Your task to perform on an android device: show emergency info Image 0: 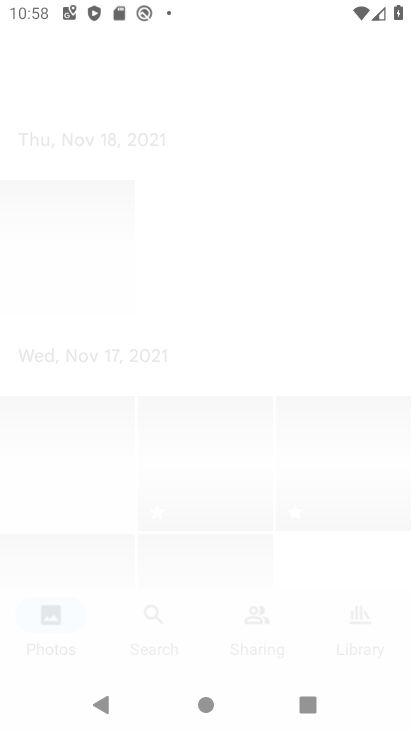
Step 0: drag from (219, 726) to (221, 167)
Your task to perform on an android device: show emergency info Image 1: 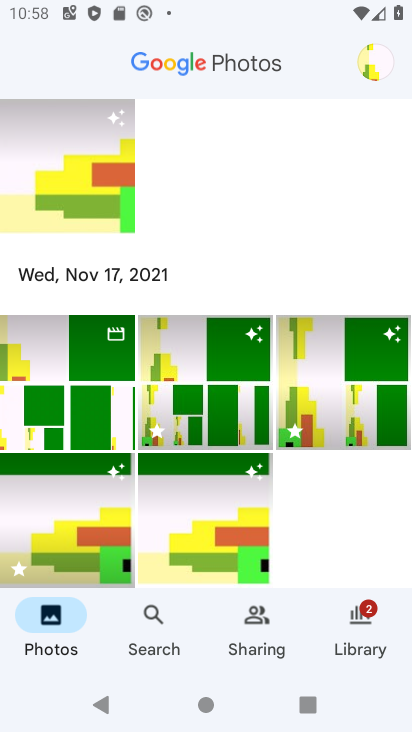
Step 1: press home button
Your task to perform on an android device: show emergency info Image 2: 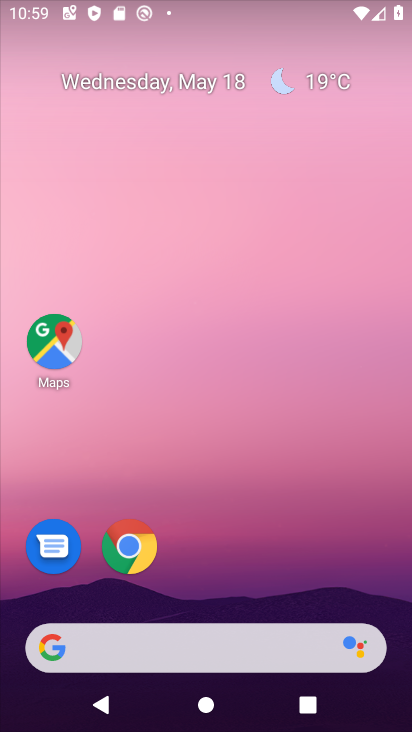
Step 2: drag from (242, 722) to (246, 109)
Your task to perform on an android device: show emergency info Image 3: 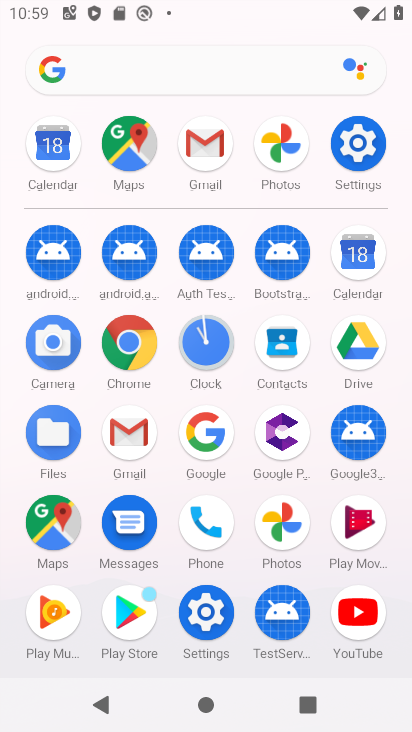
Step 3: click (363, 151)
Your task to perform on an android device: show emergency info Image 4: 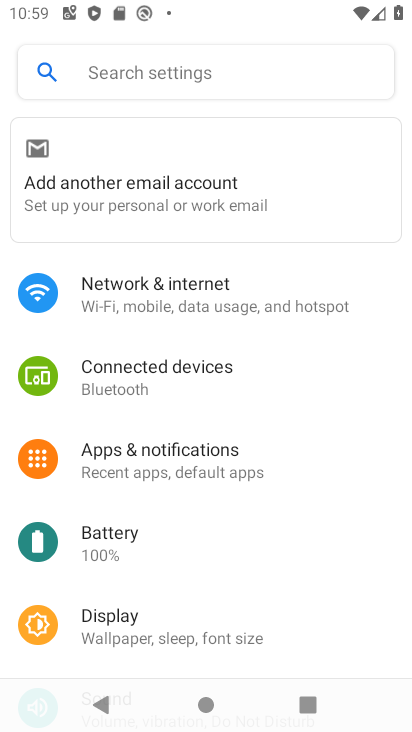
Step 4: drag from (139, 636) to (204, 161)
Your task to perform on an android device: show emergency info Image 5: 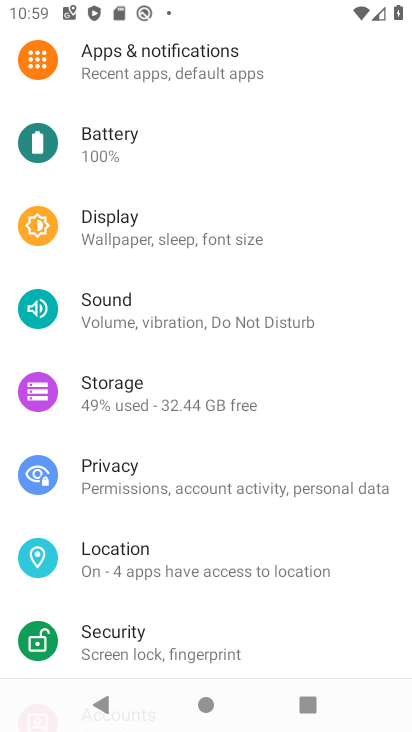
Step 5: drag from (217, 650) to (225, 180)
Your task to perform on an android device: show emergency info Image 6: 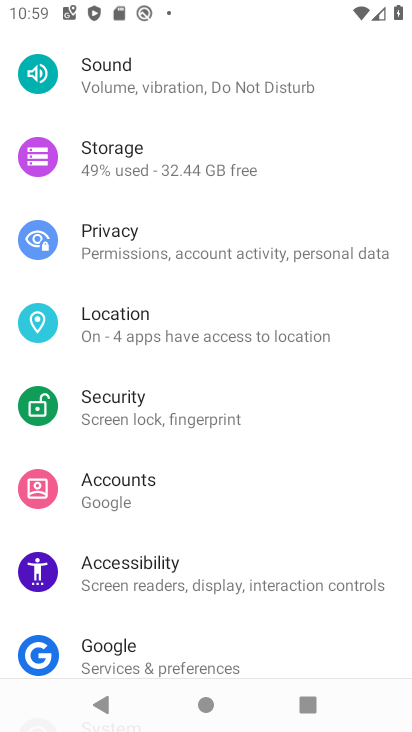
Step 6: drag from (206, 653) to (208, 160)
Your task to perform on an android device: show emergency info Image 7: 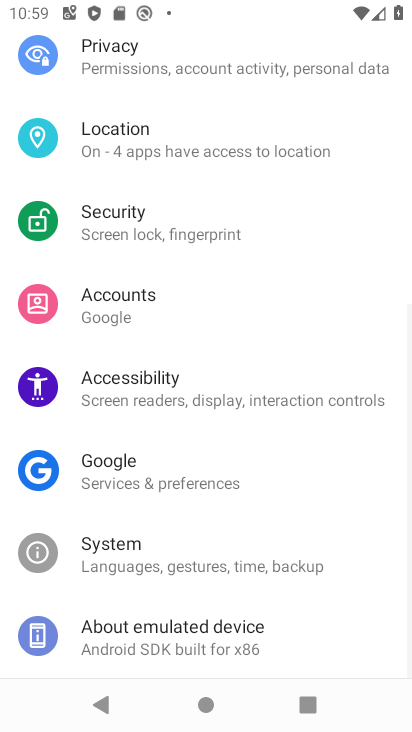
Step 7: drag from (181, 619) to (181, 118)
Your task to perform on an android device: show emergency info Image 8: 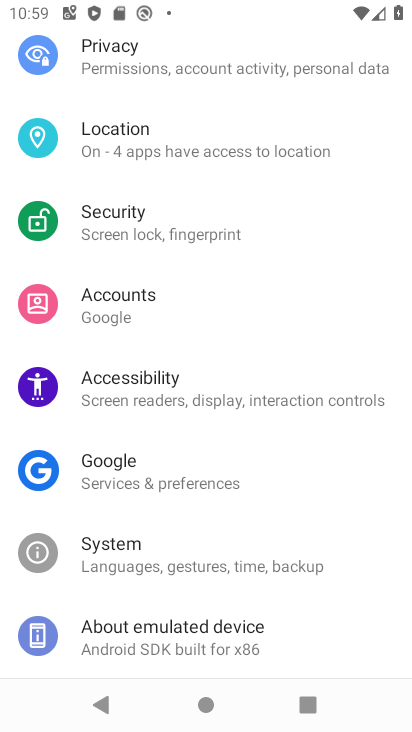
Step 8: click (215, 631)
Your task to perform on an android device: show emergency info Image 9: 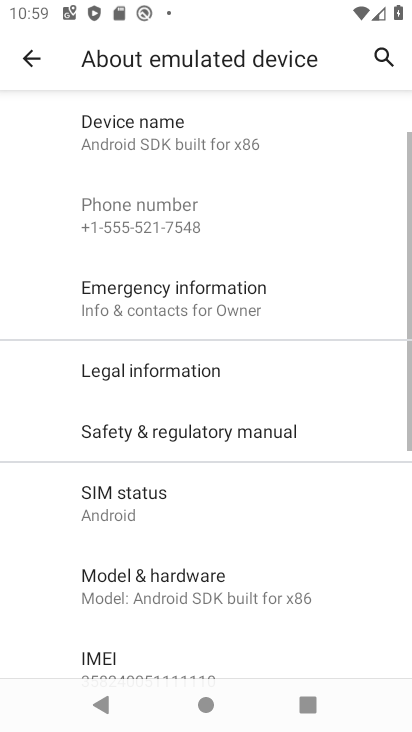
Step 9: drag from (235, 601) to (234, 343)
Your task to perform on an android device: show emergency info Image 10: 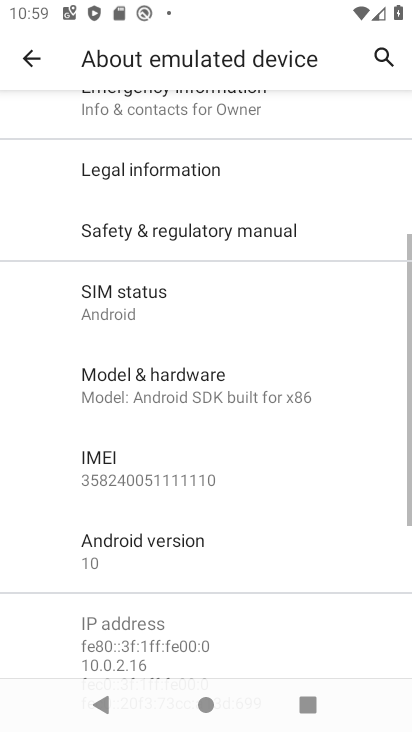
Step 10: drag from (173, 159) to (173, 378)
Your task to perform on an android device: show emergency info Image 11: 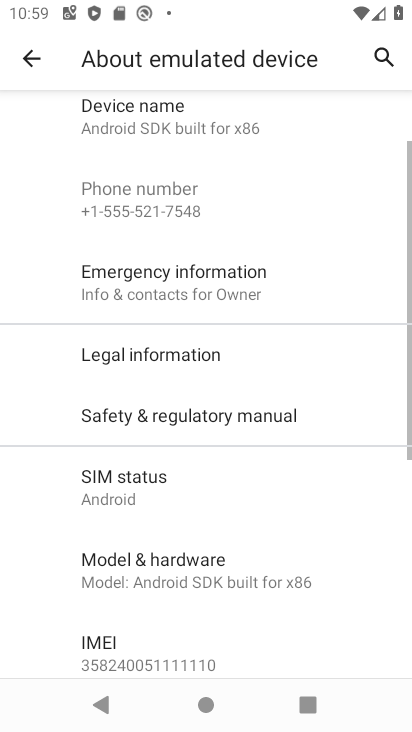
Step 11: click (174, 282)
Your task to perform on an android device: show emergency info Image 12: 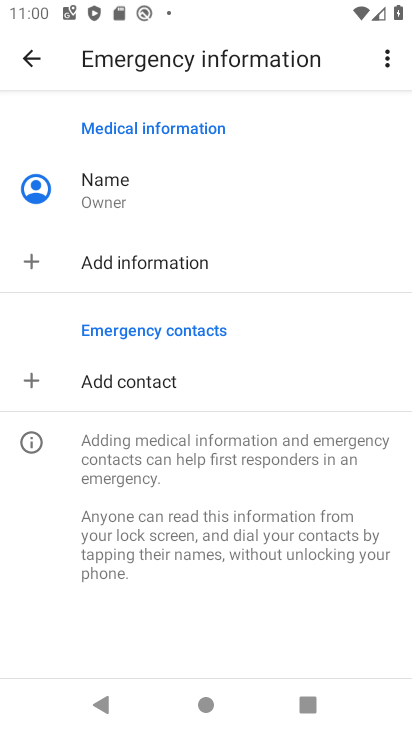
Step 12: task complete